Your task to perform on an android device: empty trash in the gmail app Image 0: 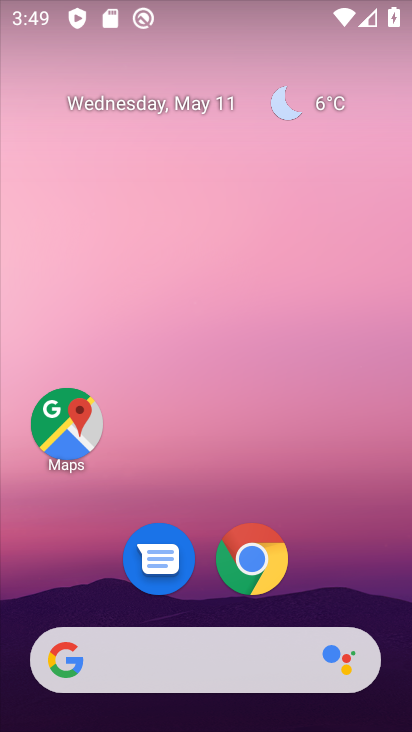
Step 0: drag from (335, 556) to (288, 152)
Your task to perform on an android device: empty trash in the gmail app Image 1: 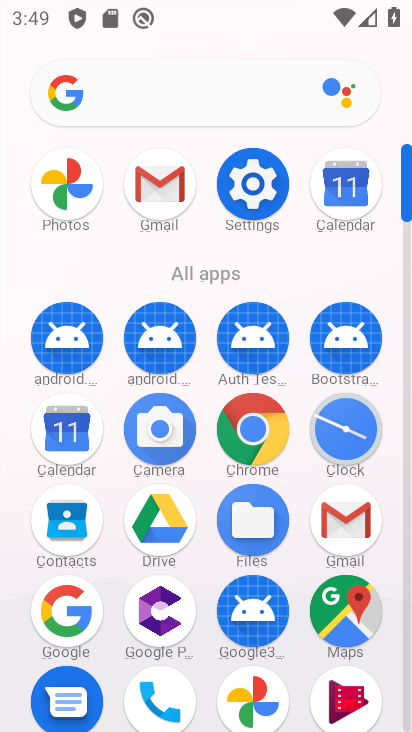
Step 1: click (169, 191)
Your task to perform on an android device: empty trash in the gmail app Image 2: 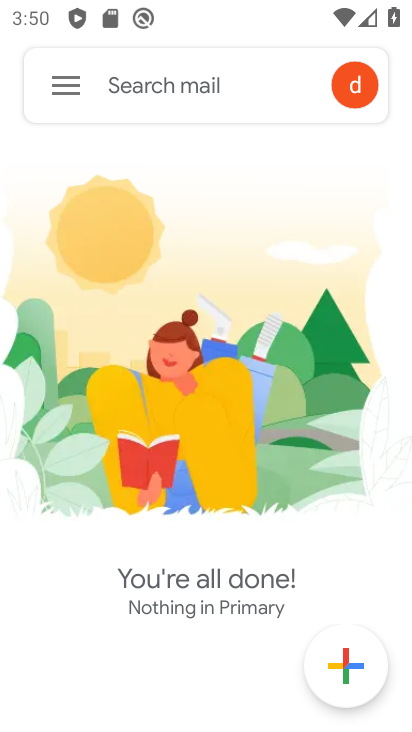
Step 2: click (47, 93)
Your task to perform on an android device: empty trash in the gmail app Image 3: 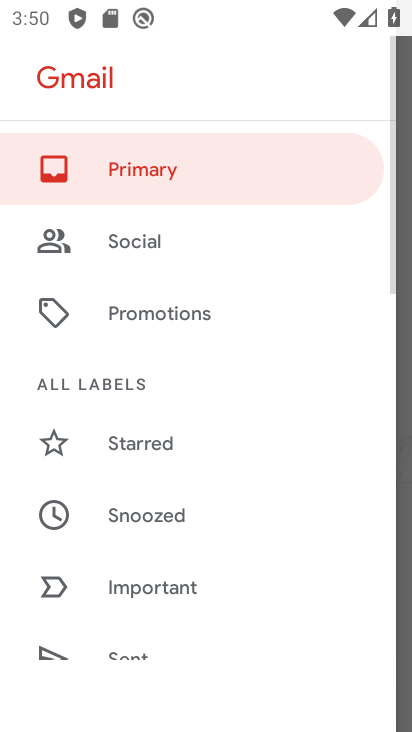
Step 3: drag from (206, 539) to (252, 143)
Your task to perform on an android device: empty trash in the gmail app Image 4: 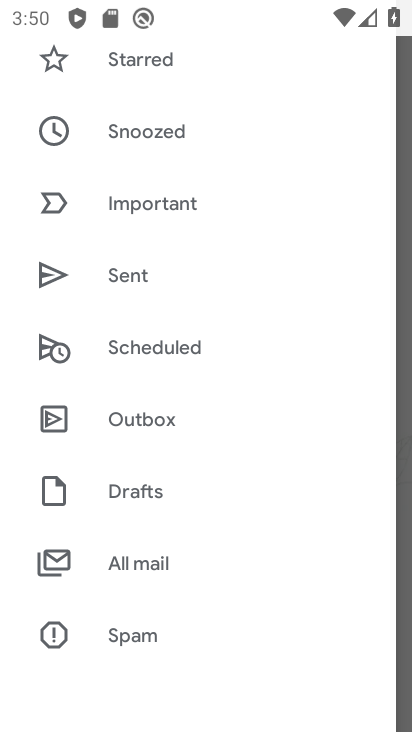
Step 4: drag from (166, 567) to (261, 176)
Your task to perform on an android device: empty trash in the gmail app Image 5: 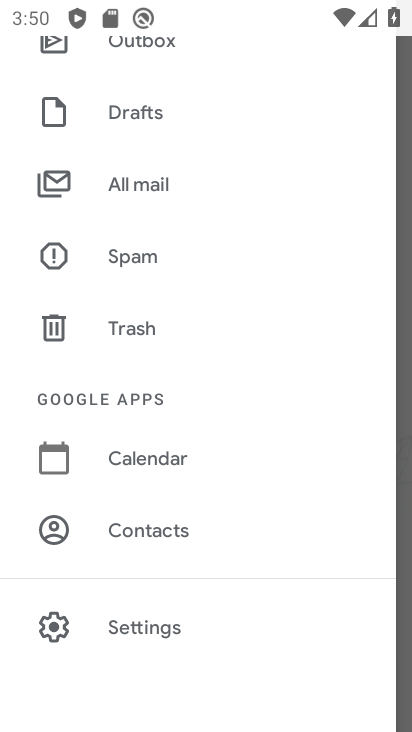
Step 5: click (121, 332)
Your task to perform on an android device: empty trash in the gmail app Image 6: 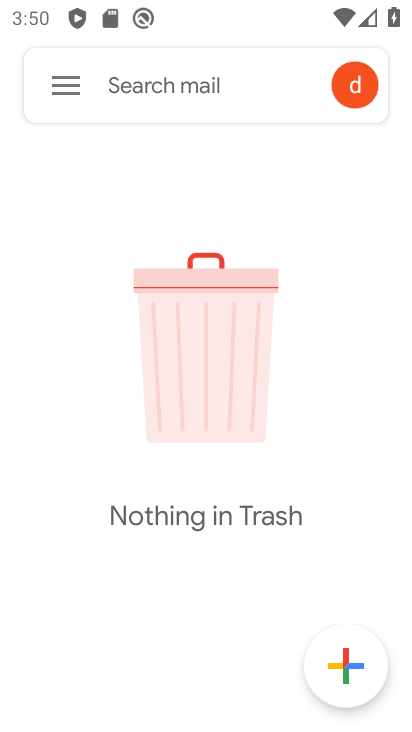
Step 6: task complete